Your task to perform on an android device: turn off airplane mode Image 0: 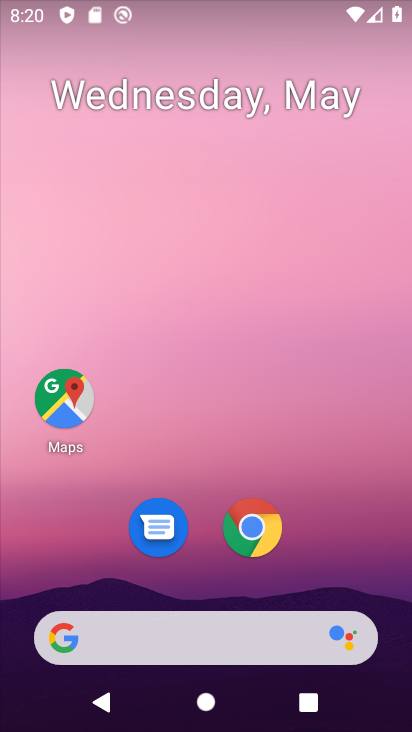
Step 0: drag from (217, 637) to (179, 166)
Your task to perform on an android device: turn off airplane mode Image 1: 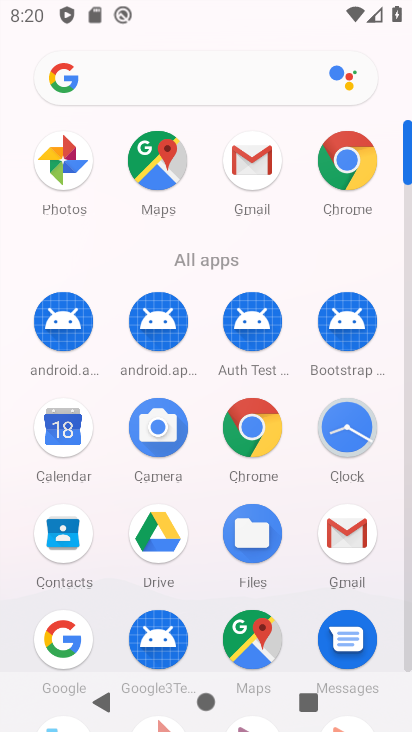
Step 1: drag from (328, 601) to (340, 370)
Your task to perform on an android device: turn off airplane mode Image 2: 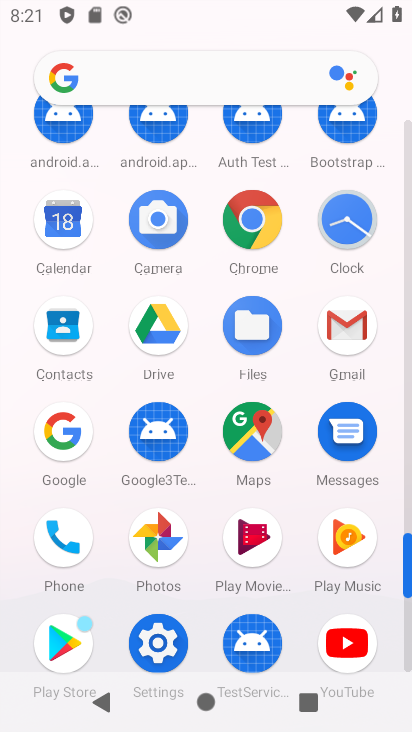
Step 2: click (143, 643)
Your task to perform on an android device: turn off airplane mode Image 3: 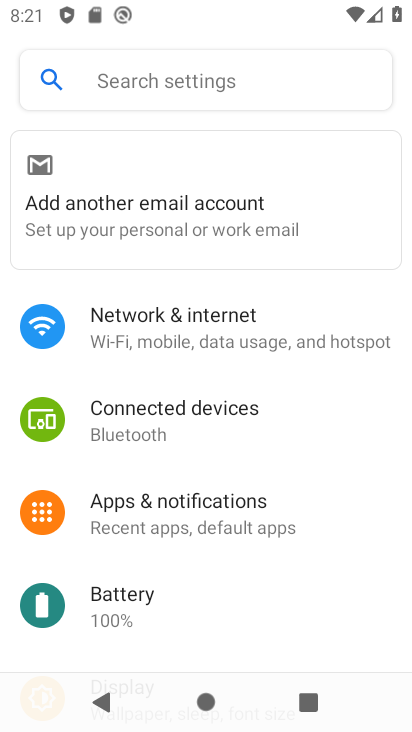
Step 3: click (255, 345)
Your task to perform on an android device: turn off airplane mode Image 4: 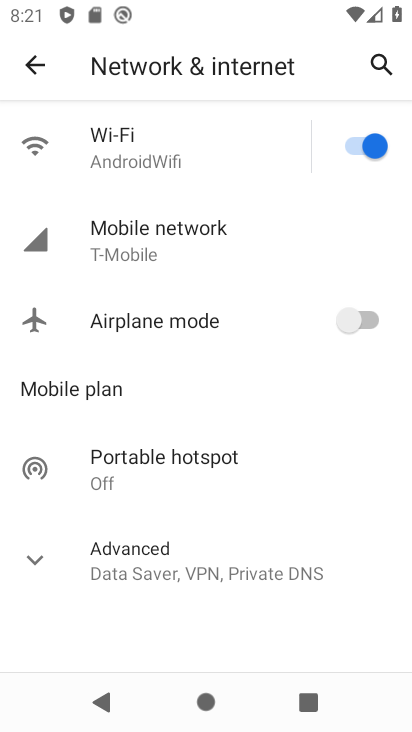
Step 4: task complete